Your task to perform on an android device: add a contact Image 0: 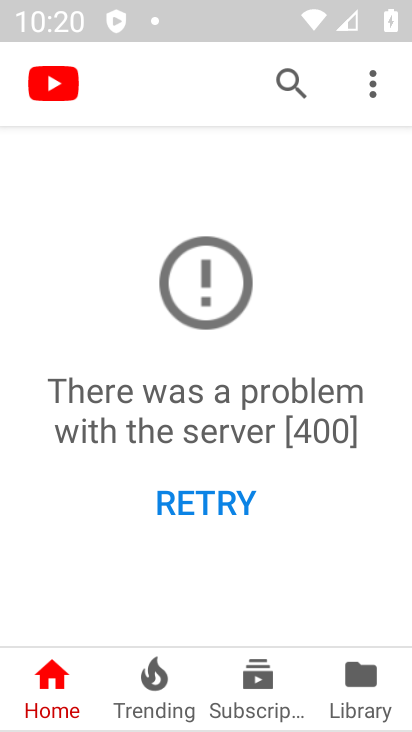
Step 0: press home button
Your task to perform on an android device: add a contact Image 1: 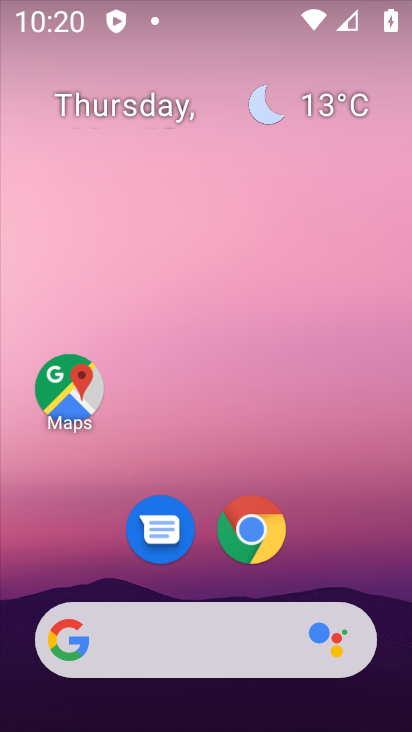
Step 1: drag from (218, 570) to (248, 117)
Your task to perform on an android device: add a contact Image 2: 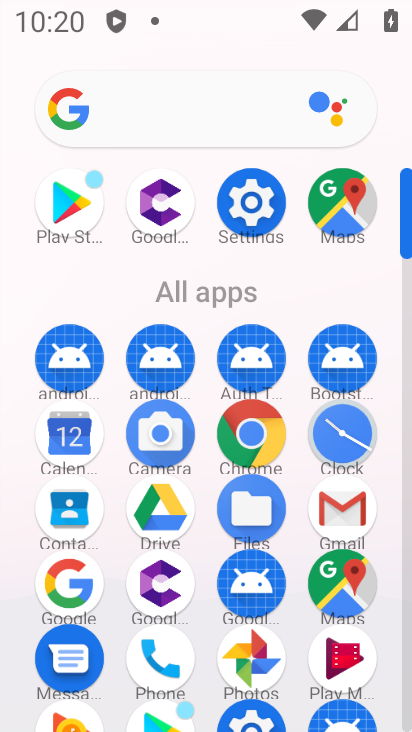
Step 2: drag from (285, 624) to (285, 297)
Your task to perform on an android device: add a contact Image 3: 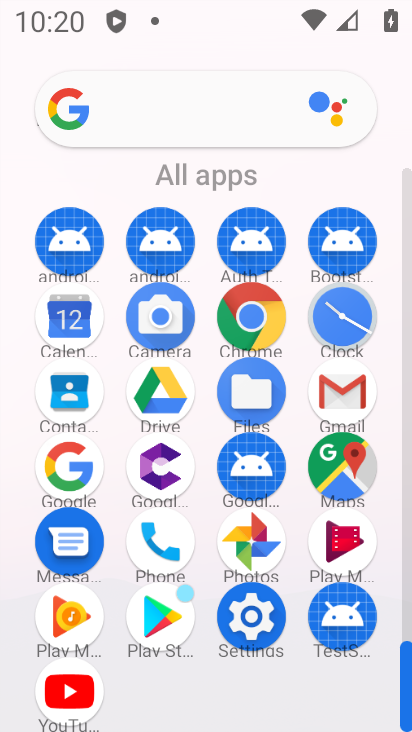
Step 3: click (62, 401)
Your task to perform on an android device: add a contact Image 4: 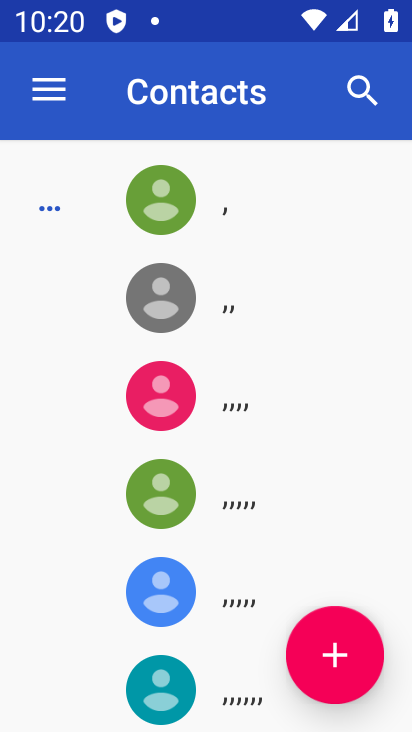
Step 4: click (328, 645)
Your task to perform on an android device: add a contact Image 5: 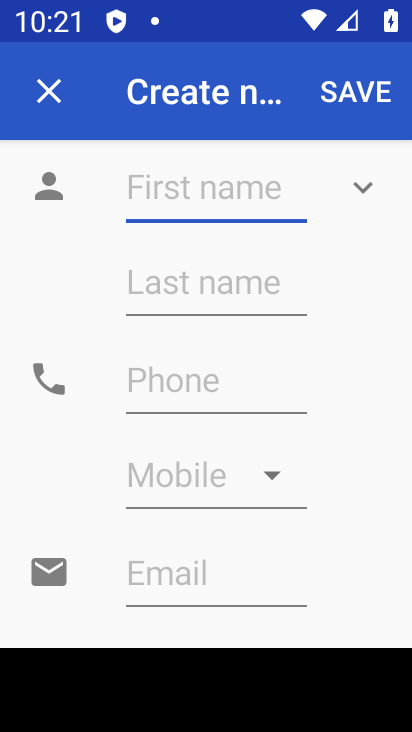
Step 5: type "wertyuiojhgfvb"
Your task to perform on an android device: add a contact Image 6: 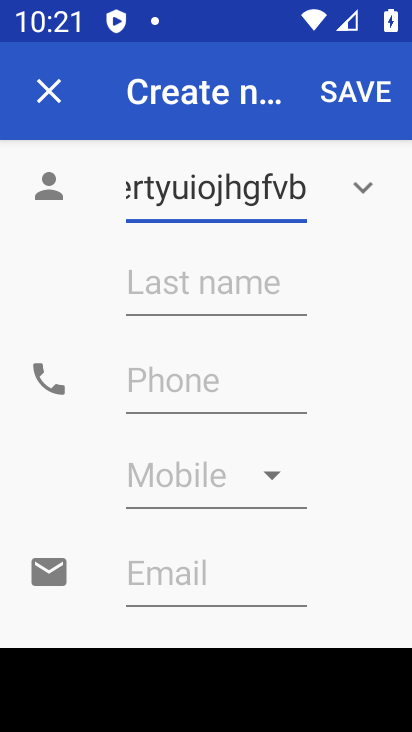
Step 6: click (151, 383)
Your task to perform on an android device: add a contact Image 7: 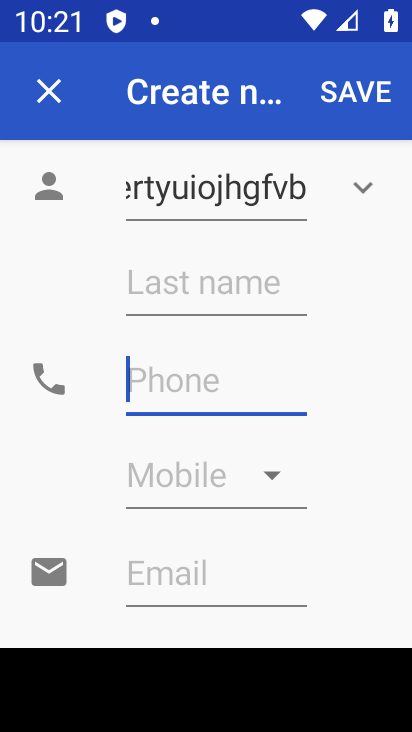
Step 7: type "2334567890"
Your task to perform on an android device: add a contact Image 8: 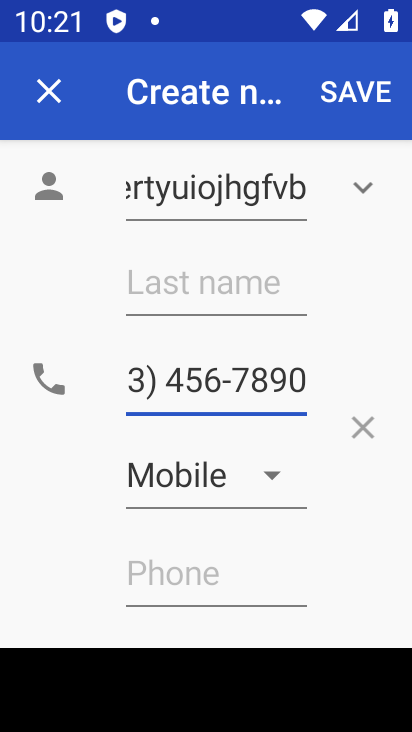
Step 8: click (359, 81)
Your task to perform on an android device: add a contact Image 9: 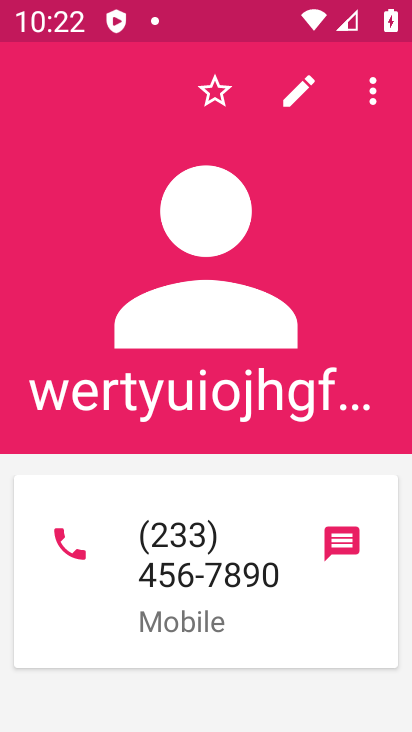
Step 9: task complete